Your task to perform on an android device: Search for dining sets on article.com Image 0: 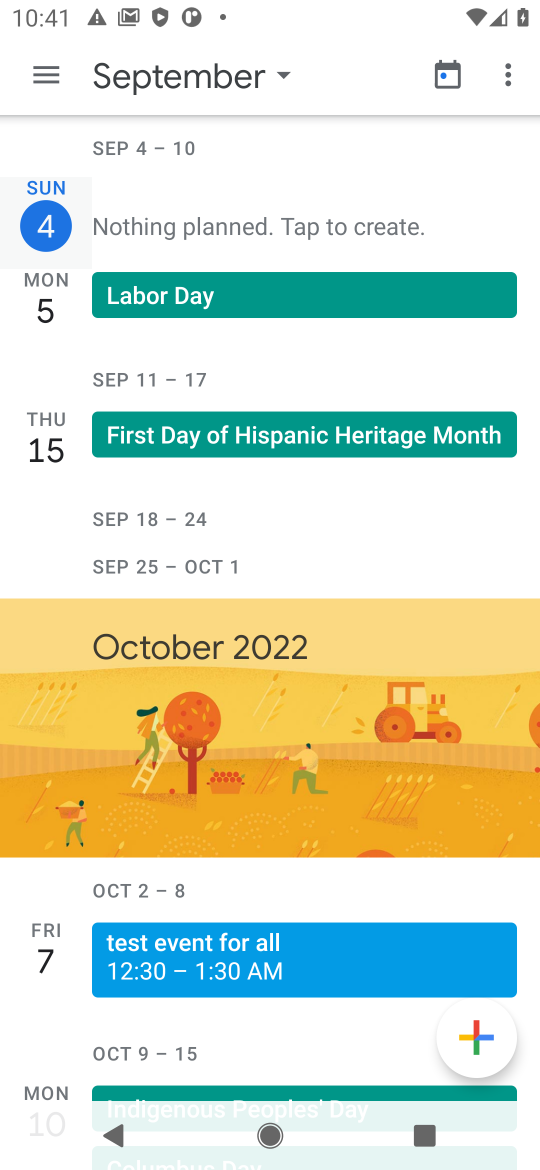
Step 0: press home button
Your task to perform on an android device: Search for dining sets on article.com Image 1: 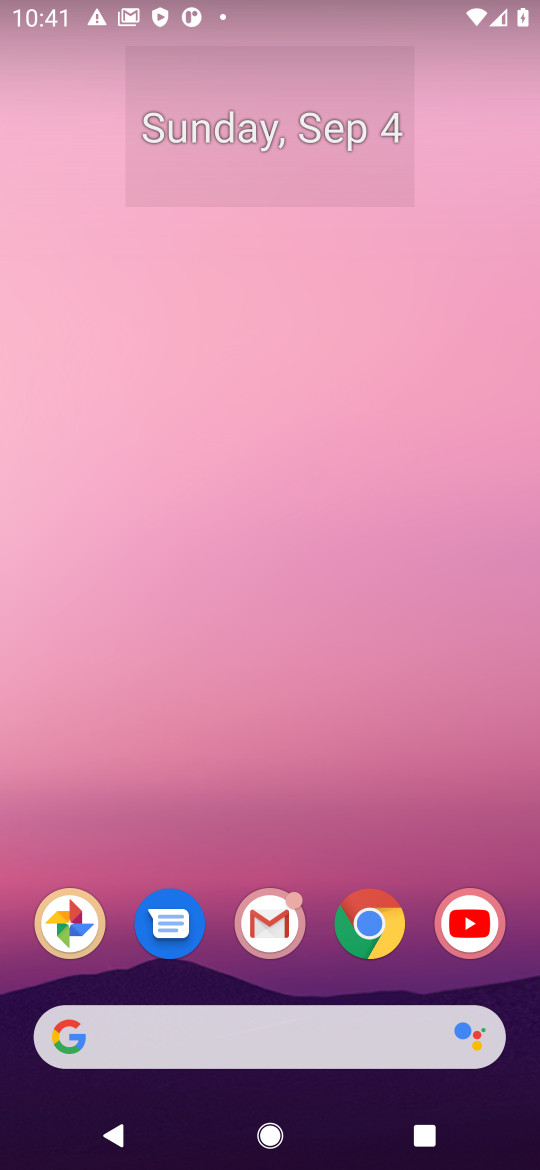
Step 1: click (392, 1045)
Your task to perform on an android device: Search for dining sets on article.com Image 2: 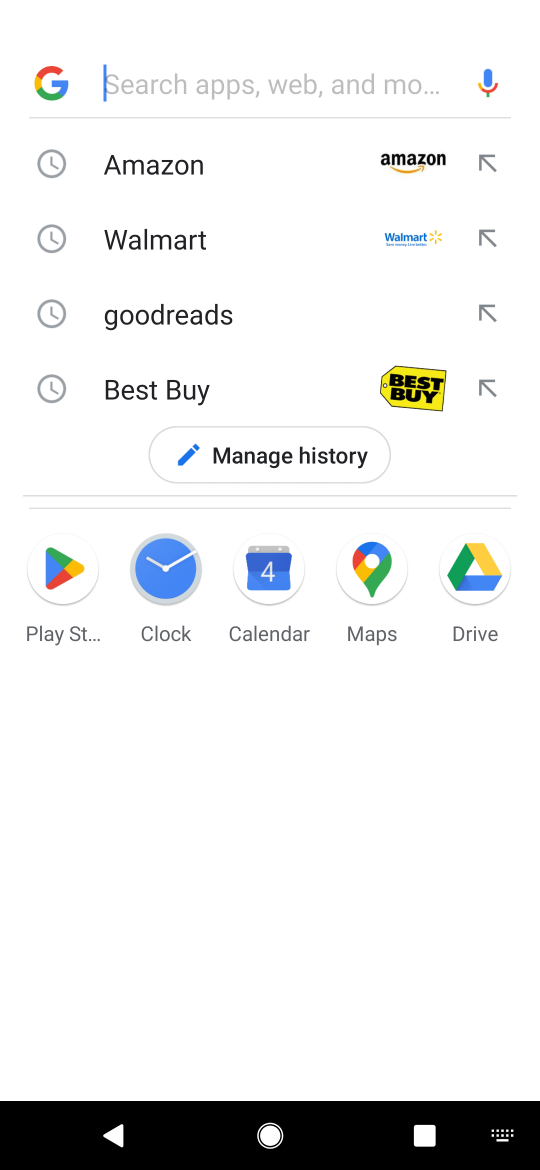
Step 2: press enter
Your task to perform on an android device: Search for dining sets on article.com Image 3: 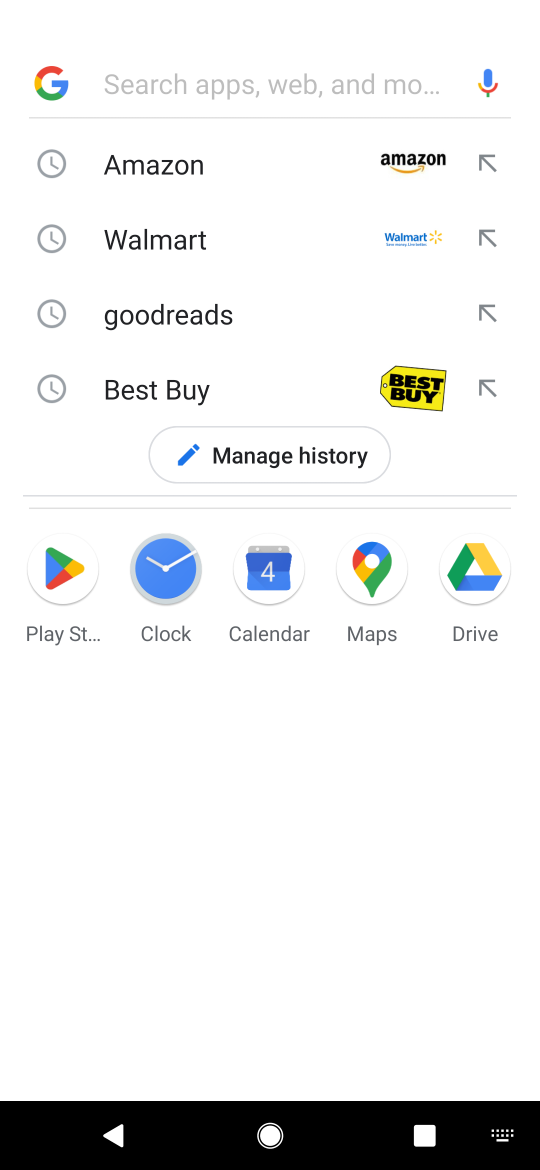
Step 3: type "article.com"
Your task to perform on an android device: Search for dining sets on article.com Image 4: 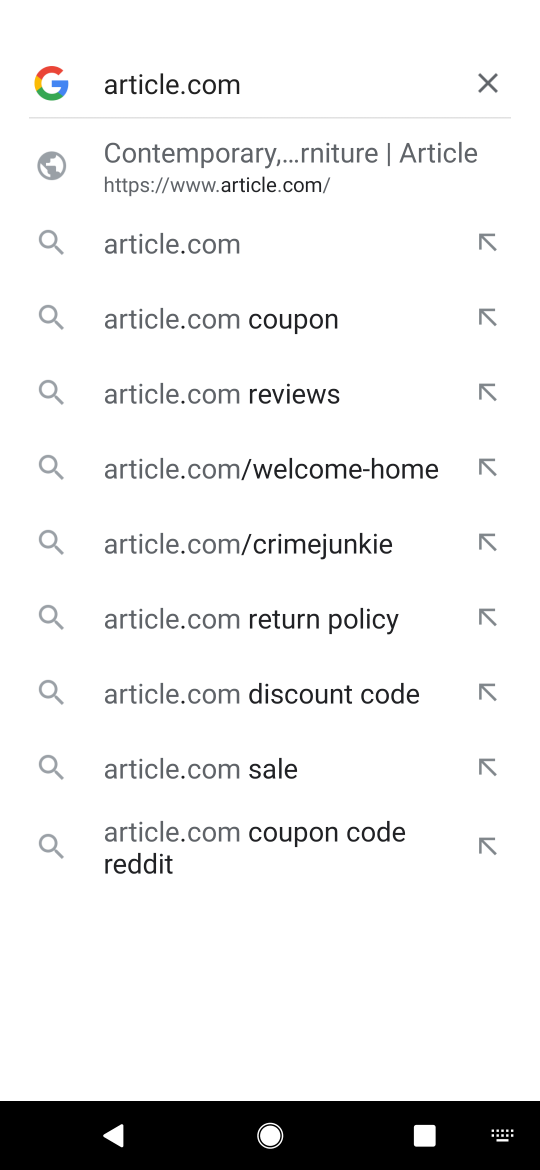
Step 4: click (179, 163)
Your task to perform on an android device: Search for dining sets on article.com Image 5: 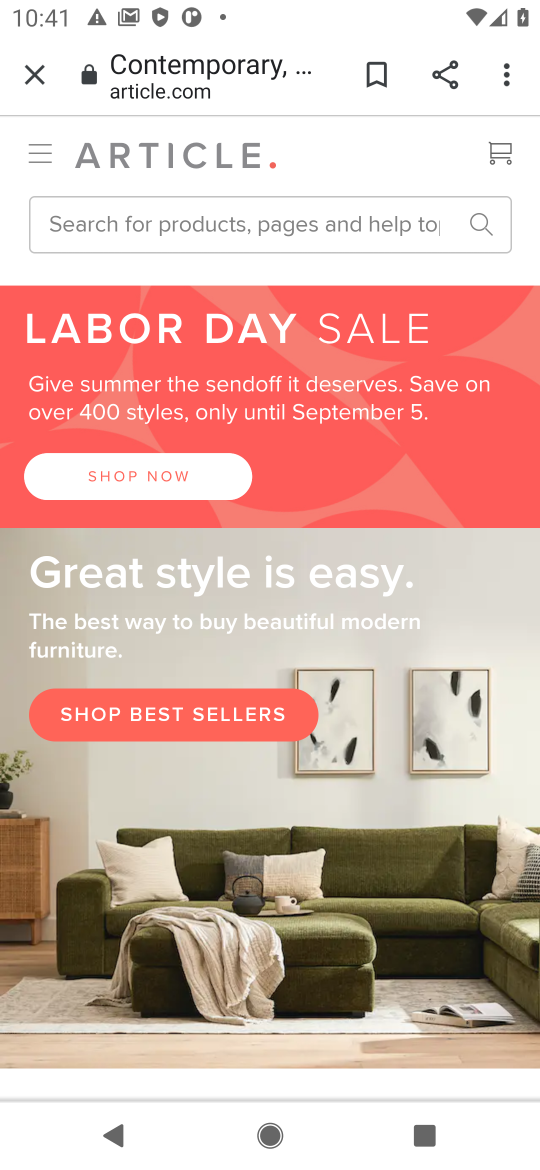
Step 5: click (50, 224)
Your task to perform on an android device: Search for dining sets on article.com Image 6: 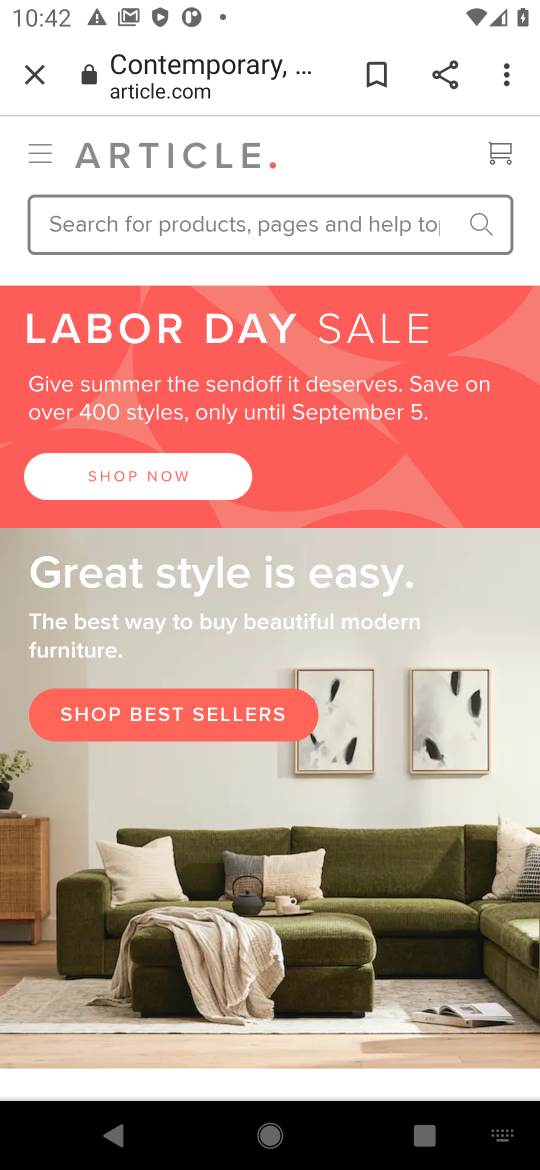
Step 6: press enter
Your task to perform on an android device: Search for dining sets on article.com Image 7: 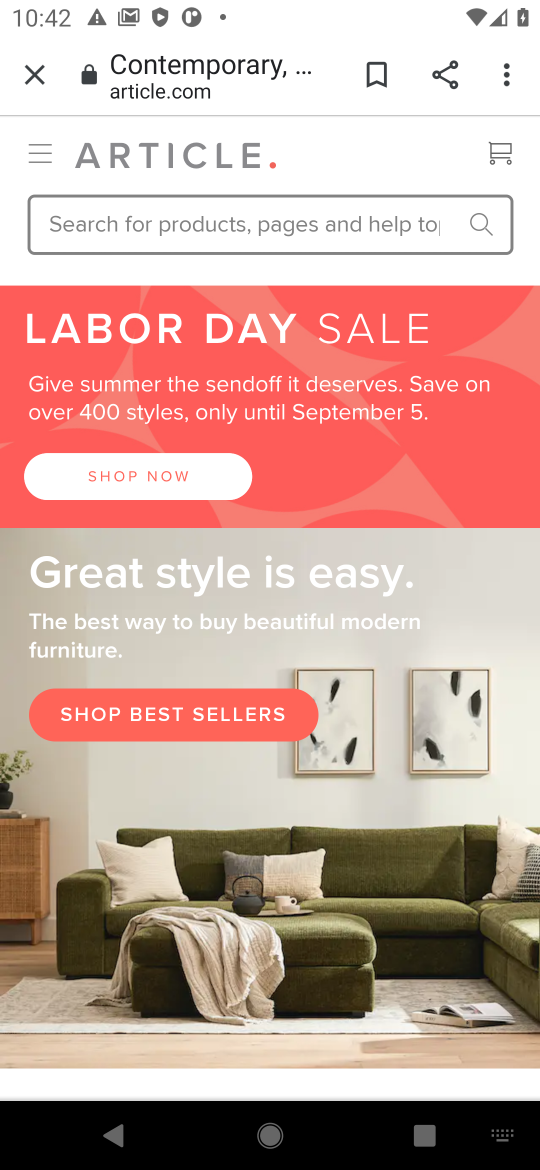
Step 7: type "dining sets"
Your task to perform on an android device: Search for dining sets on article.com Image 8: 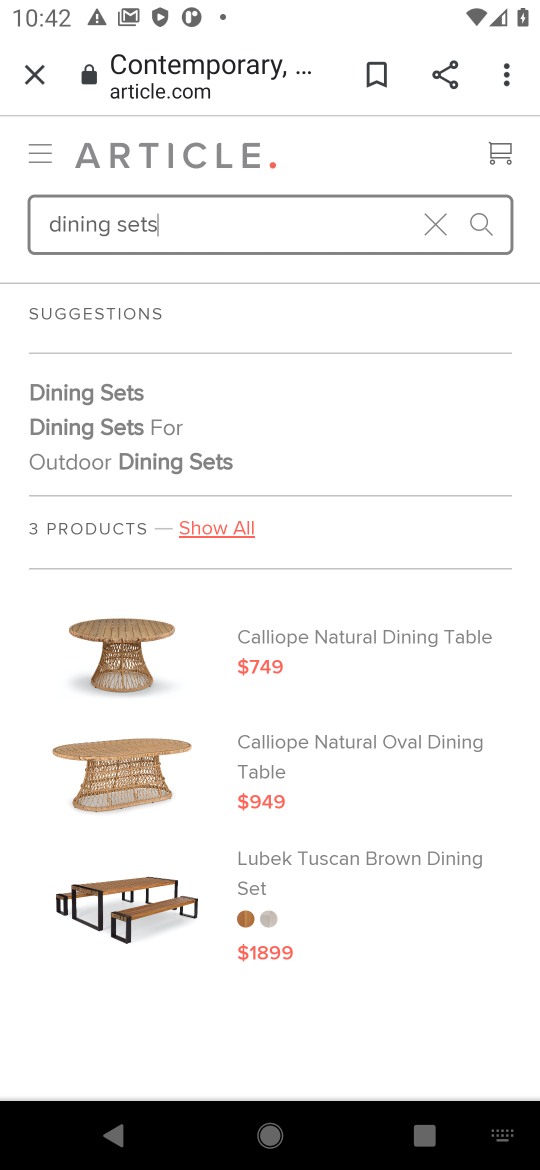
Step 8: task complete